Your task to perform on an android device: Open eBay Image 0: 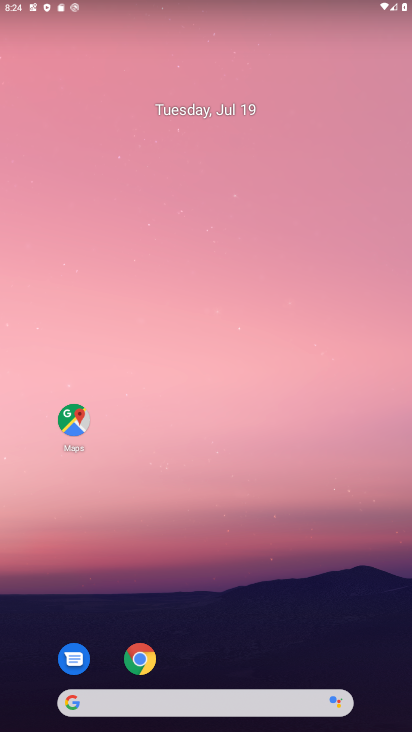
Step 0: click (137, 660)
Your task to perform on an android device: Open eBay Image 1: 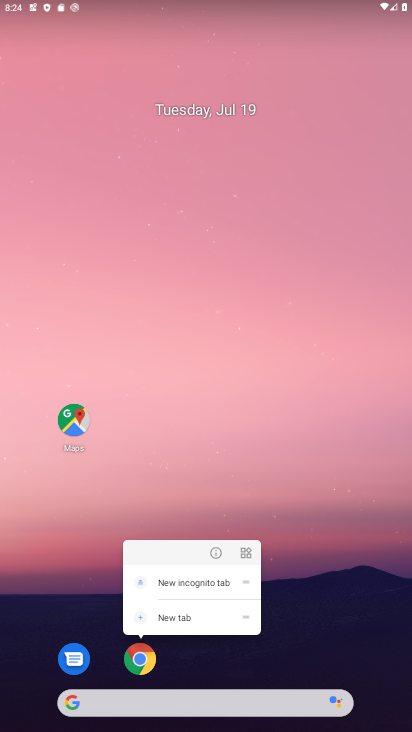
Step 1: click (137, 660)
Your task to perform on an android device: Open eBay Image 2: 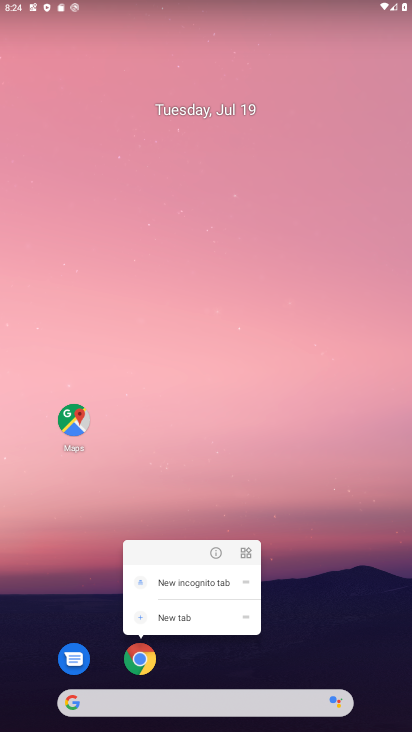
Step 2: click (142, 660)
Your task to perform on an android device: Open eBay Image 3: 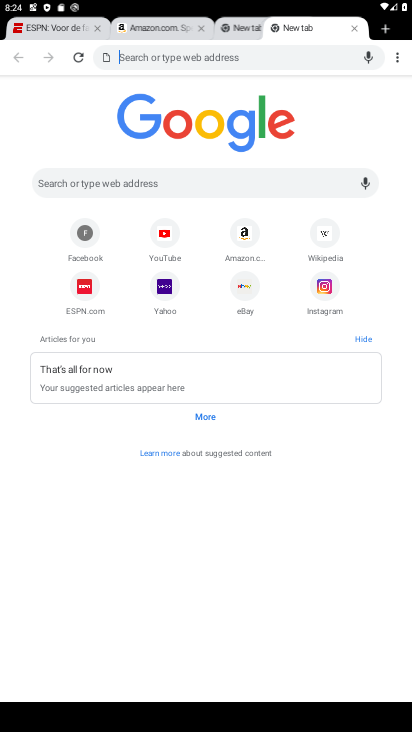
Step 3: click (251, 289)
Your task to perform on an android device: Open eBay Image 4: 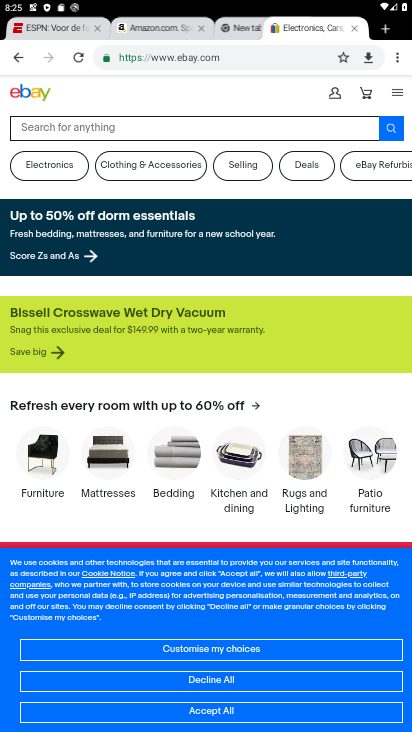
Step 4: task complete